Your task to perform on an android device: open app "Etsy: Buy & Sell Unique Items" (install if not already installed) and enter user name: "camp@inbox.com" and password: "unrelated" Image 0: 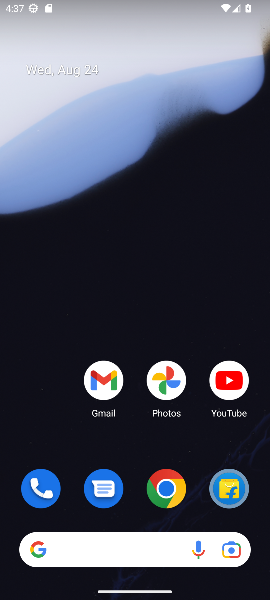
Step 0: drag from (138, 514) to (106, 67)
Your task to perform on an android device: open app "Etsy: Buy & Sell Unique Items" (install if not already installed) and enter user name: "camp@inbox.com" and password: "unrelated" Image 1: 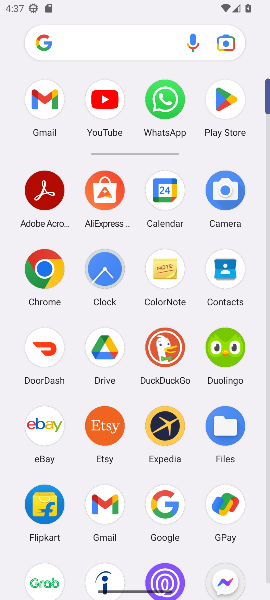
Step 1: click (216, 101)
Your task to perform on an android device: open app "Etsy: Buy & Sell Unique Items" (install if not already installed) and enter user name: "camp@inbox.com" and password: "unrelated" Image 2: 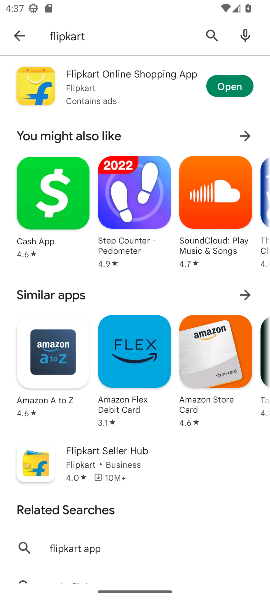
Step 2: click (211, 49)
Your task to perform on an android device: open app "Etsy: Buy & Sell Unique Items" (install if not already installed) and enter user name: "camp@inbox.com" and password: "unrelated" Image 3: 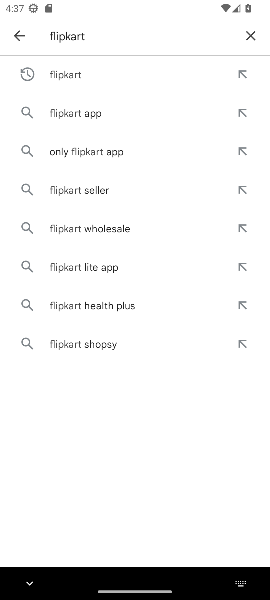
Step 3: click (248, 40)
Your task to perform on an android device: open app "Etsy: Buy & Sell Unique Items" (install if not already installed) and enter user name: "camp@inbox.com" and password: "unrelated" Image 4: 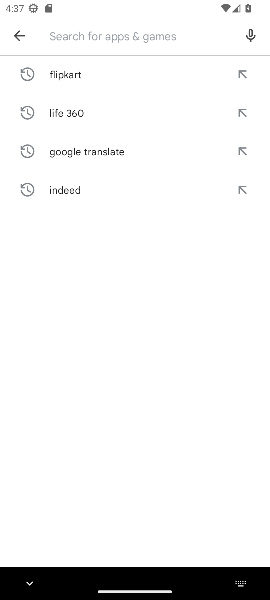
Step 4: type "etsy"
Your task to perform on an android device: open app "Etsy: Buy & Sell Unique Items" (install if not already installed) and enter user name: "camp@inbox.com" and password: "unrelated" Image 5: 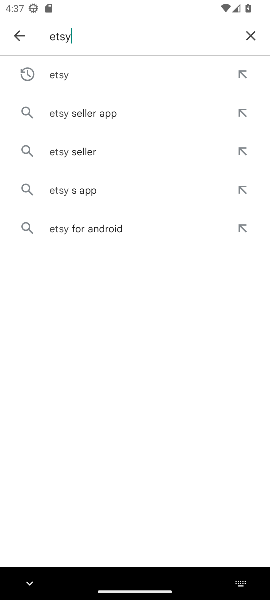
Step 5: click (140, 74)
Your task to perform on an android device: open app "Etsy: Buy & Sell Unique Items" (install if not already installed) and enter user name: "camp@inbox.com" and password: "unrelated" Image 6: 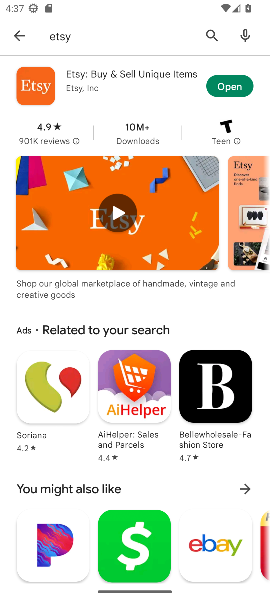
Step 6: click (237, 84)
Your task to perform on an android device: open app "Etsy: Buy & Sell Unique Items" (install if not already installed) and enter user name: "camp@inbox.com" and password: "unrelated" Image 7: 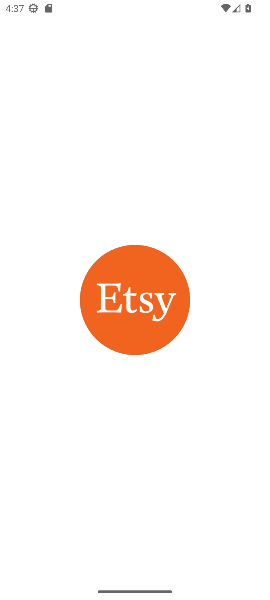
Step 7: task complete